Your task to perform on an android device: turn off wifi Image 0: 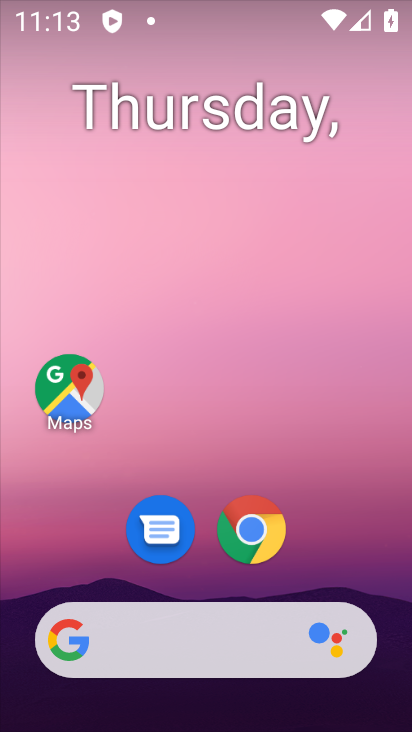
Step 0: drag from (208, 604) to (277, 109)
Your task to perform on an android device: turn off wifi Image 1: 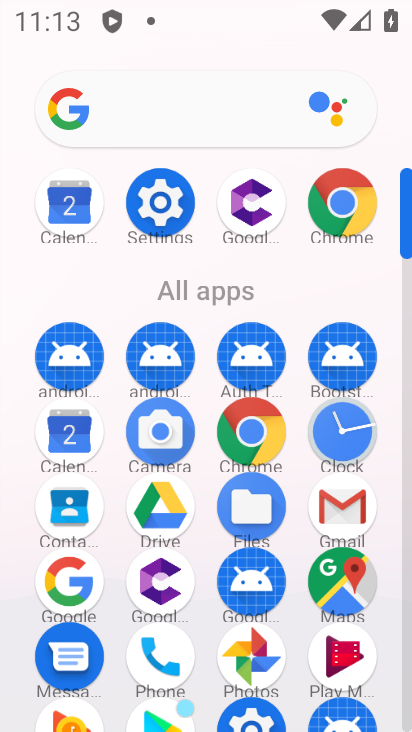
Step 1: click (155, 197)
Your task to perform on an android device: turn off wifi Image 2: 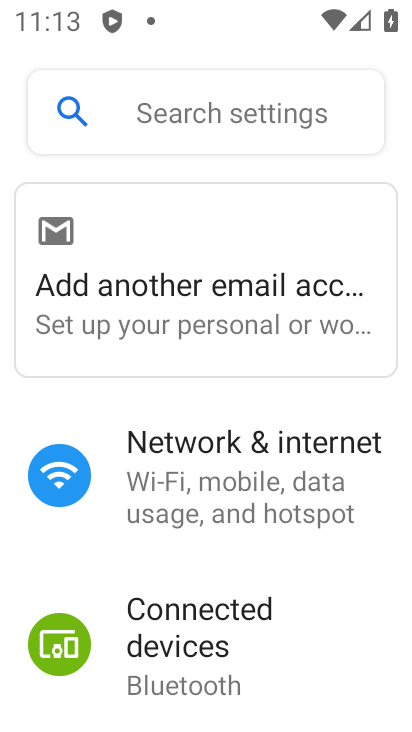
Step 2: click (221, 457)
Your task to perform on an android device: turn off wifi Image 3: 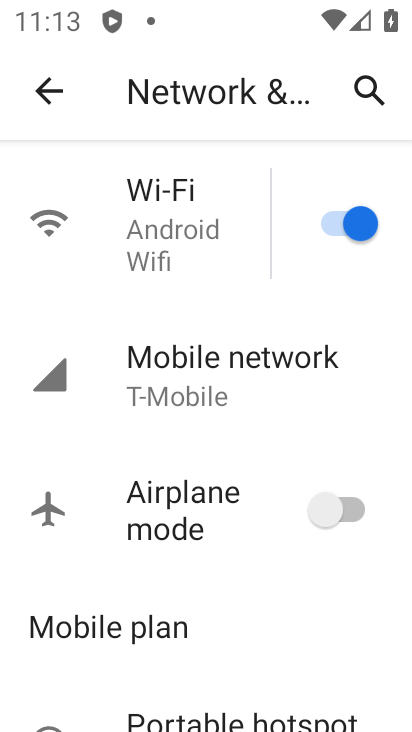
Step 3: click (324, 222)
Your task to perform on an android device: turn off wifi Image 4: 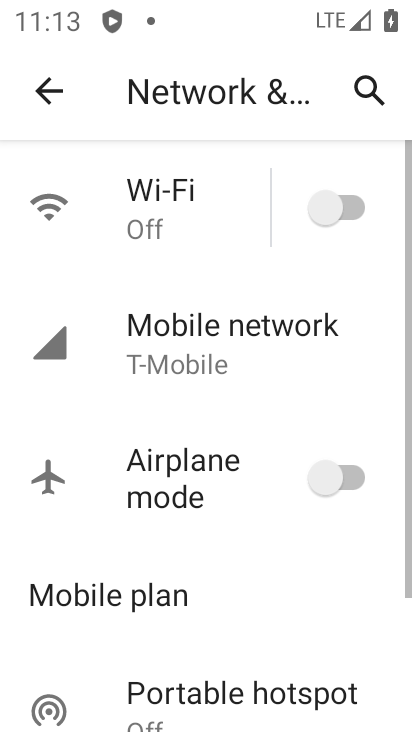
Step 4: task complete